Your task to perform on an android device: open app "LinkedIn" (install if not already installed) Image 0: 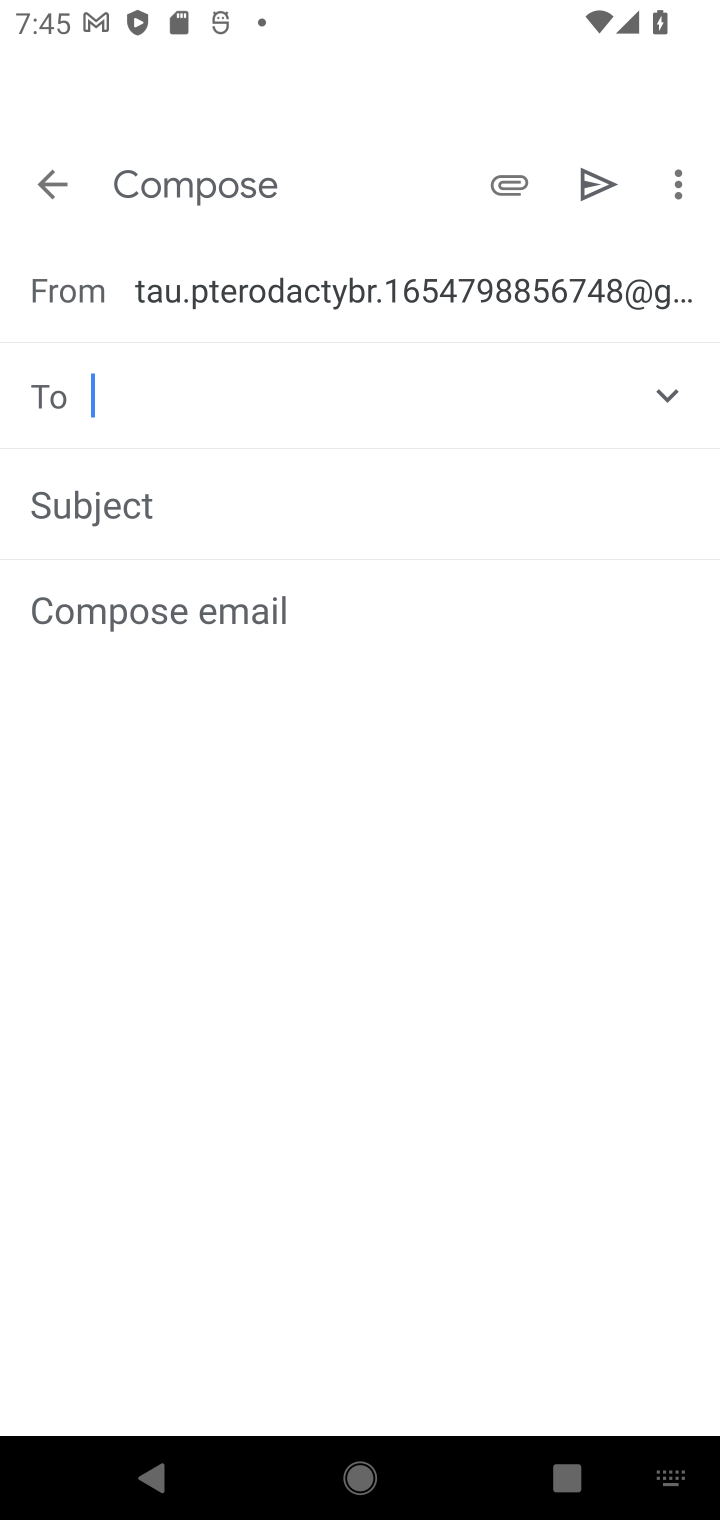
Step 0: press back button
Your task to perform on an android device: open app "LinkedIn" (install if not already installed) Image 1: 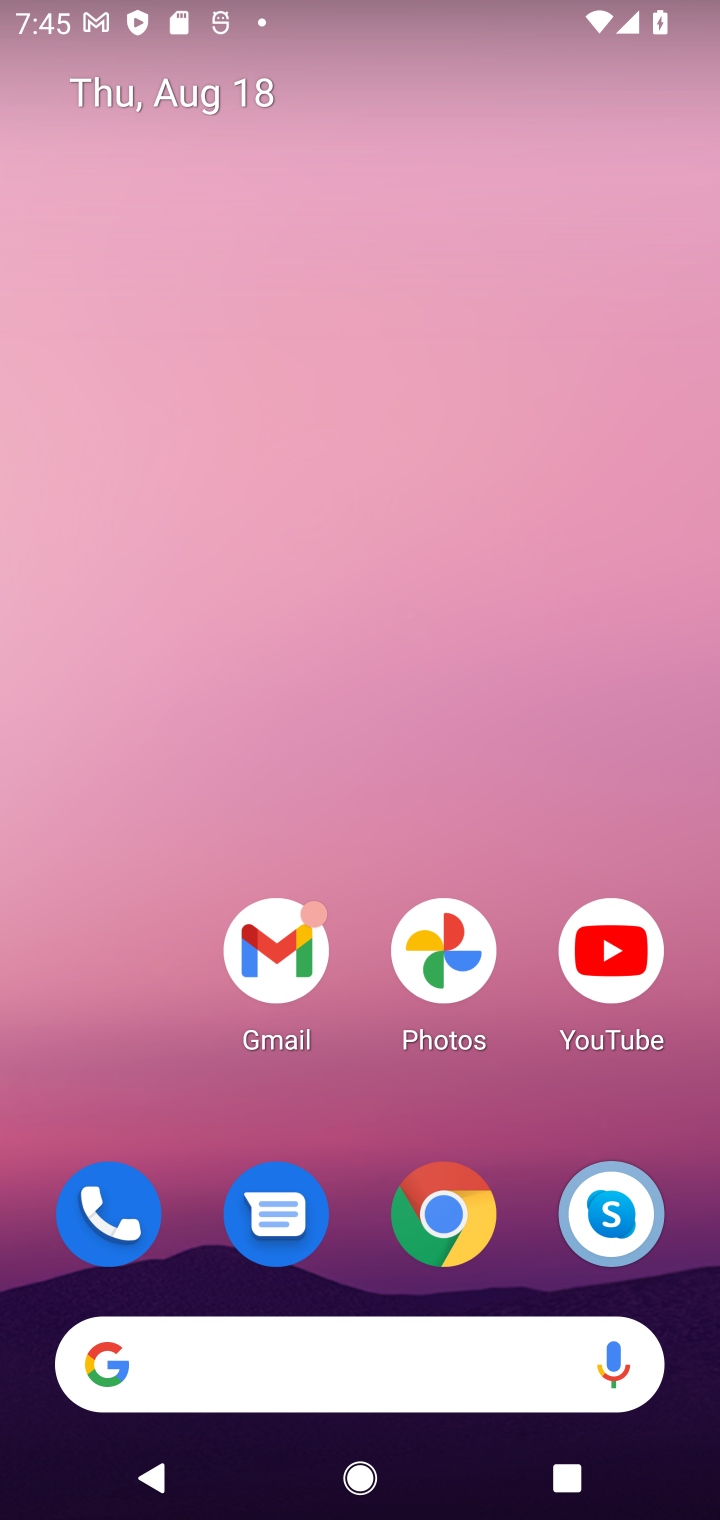
Step 1: drag from (137, 1066) to (244, 152)
Your task to perform on an android device: open app "LinkedIn" (install if not already installed) Image 2: 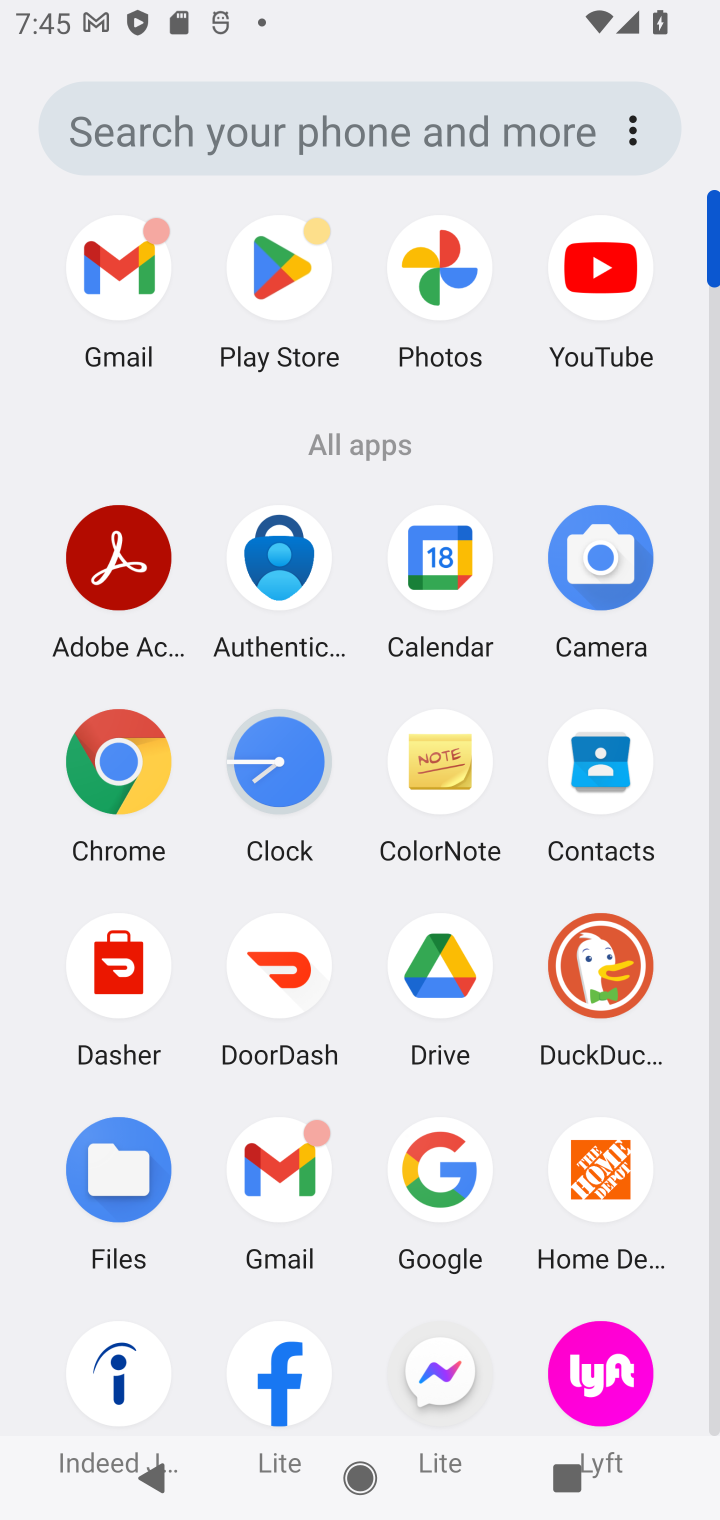
Step 2: click (290, 257)
Your task to perform on an android device: open app "LinkedIn" (install if not already installed) Image 3: 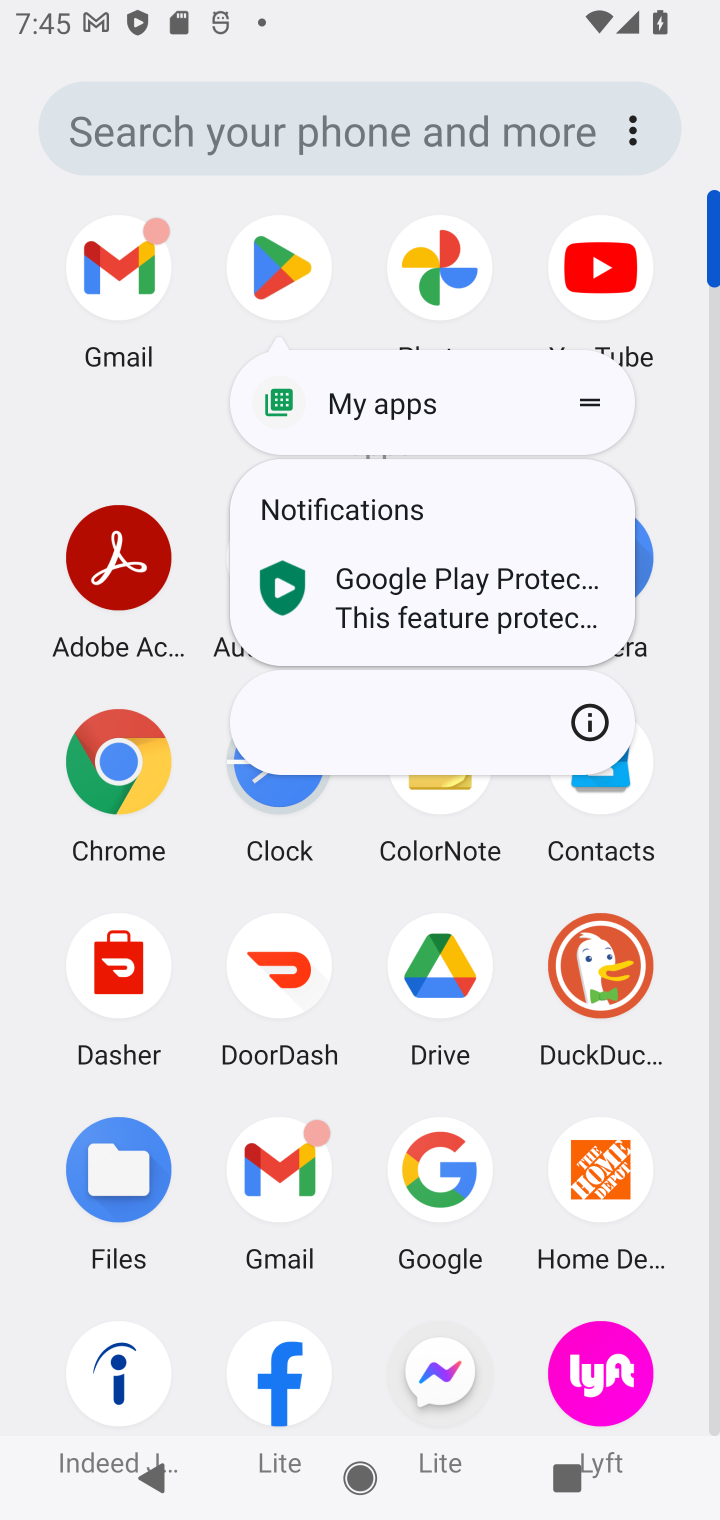
Step 3: click (277, 280)
Your task to perform on an android device: open app "LinkedIn" (install if not already installed) Image 4: 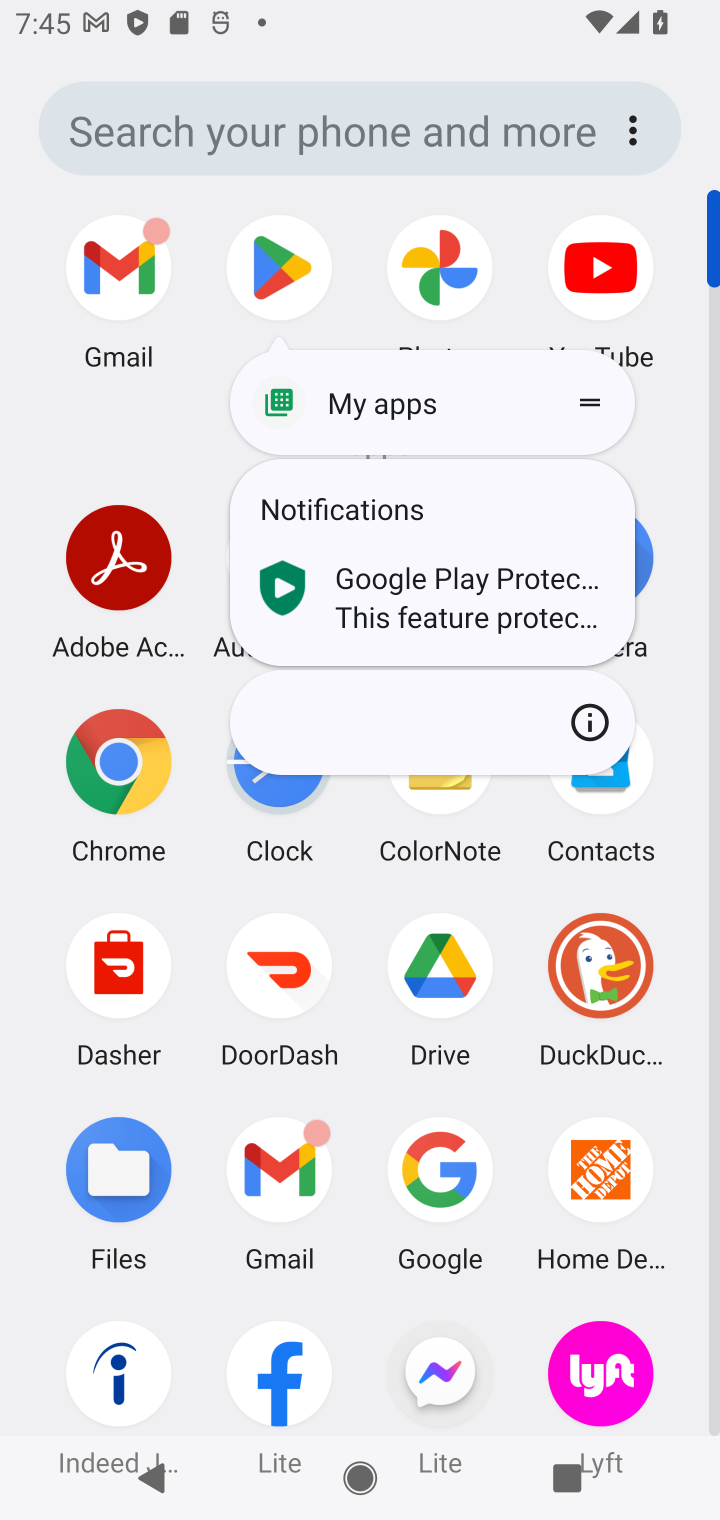
Step 4: click (270, 268)
Your task to perform on an android device: open app "LinkedIn" (install if not already installed) Image 5: 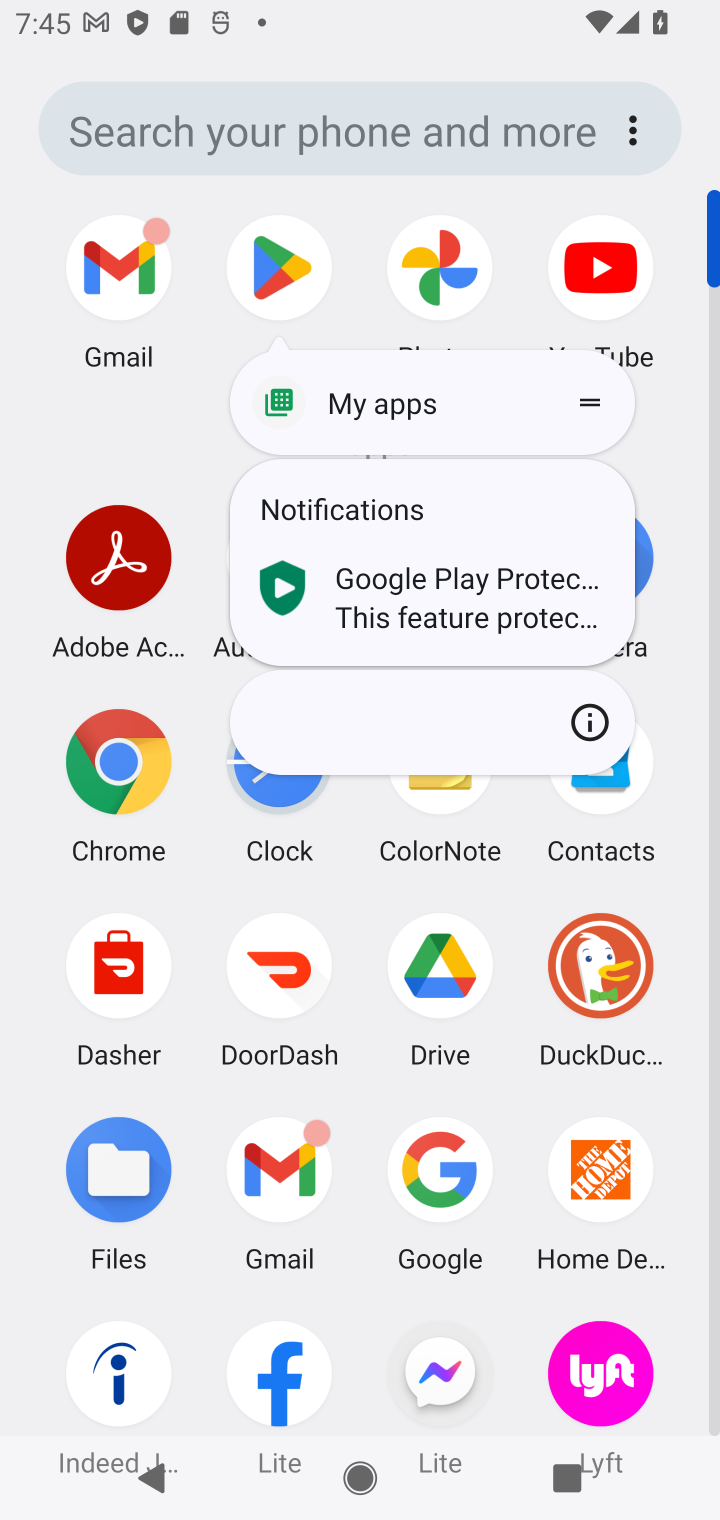
Step 5: click (273, 262)
Your task to perform on an android device: open app "LinkedIn" (install if not already installed) Image 6: 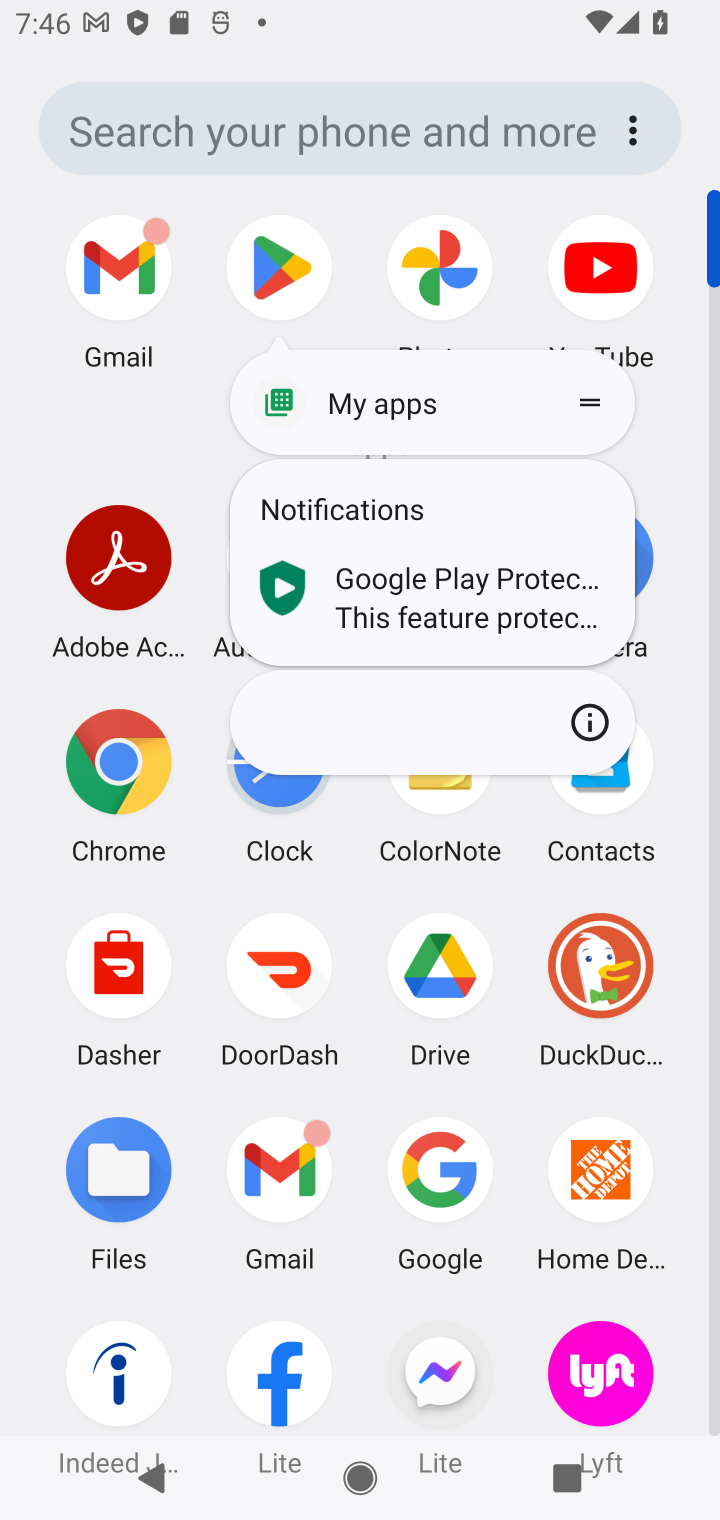
Step 6: click (281, 273)
Your task to perform on an android device: open app "LinkedIn" (install if not already installed) Image 7: 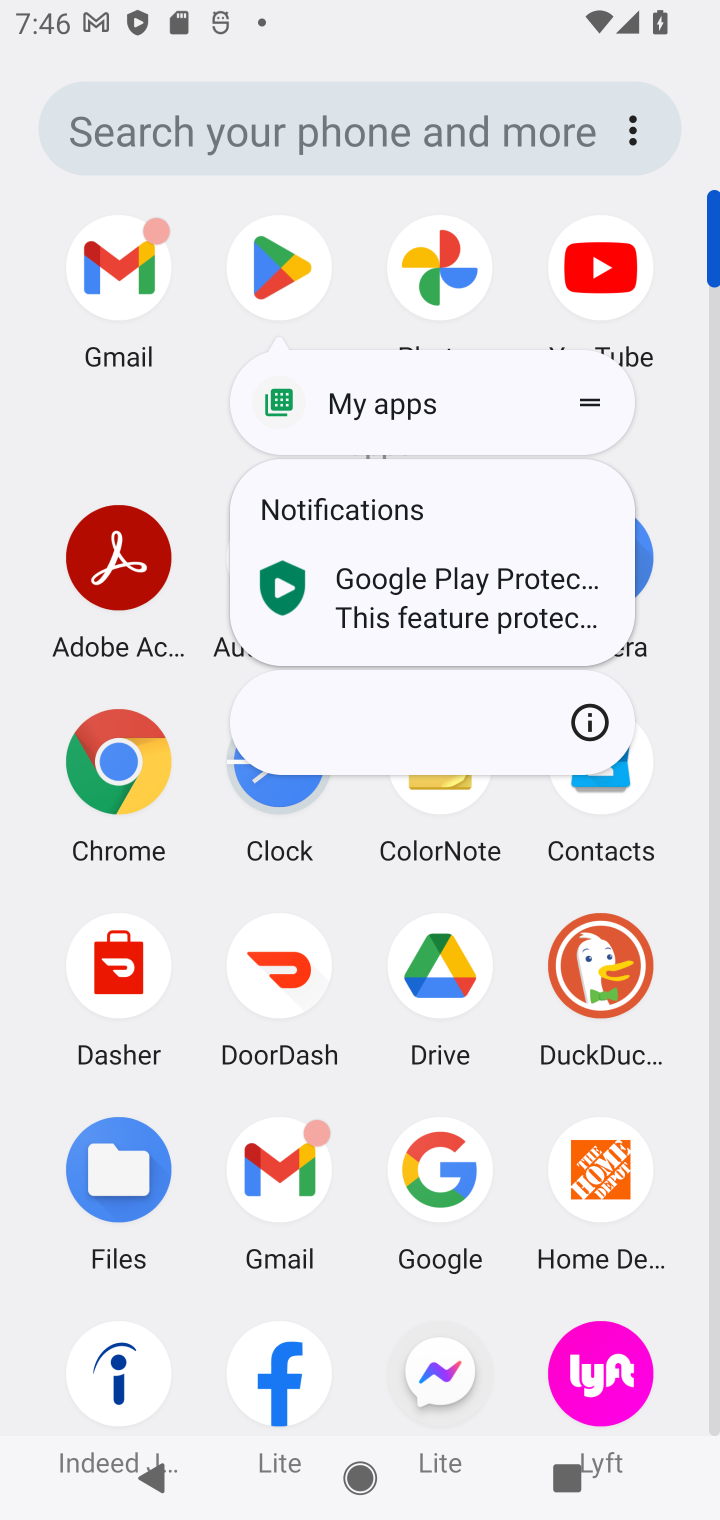
Step 7: click (281, 273)
Your task to perform on an android device: open app "LinkedIn" (install if not already installed) Image 8: 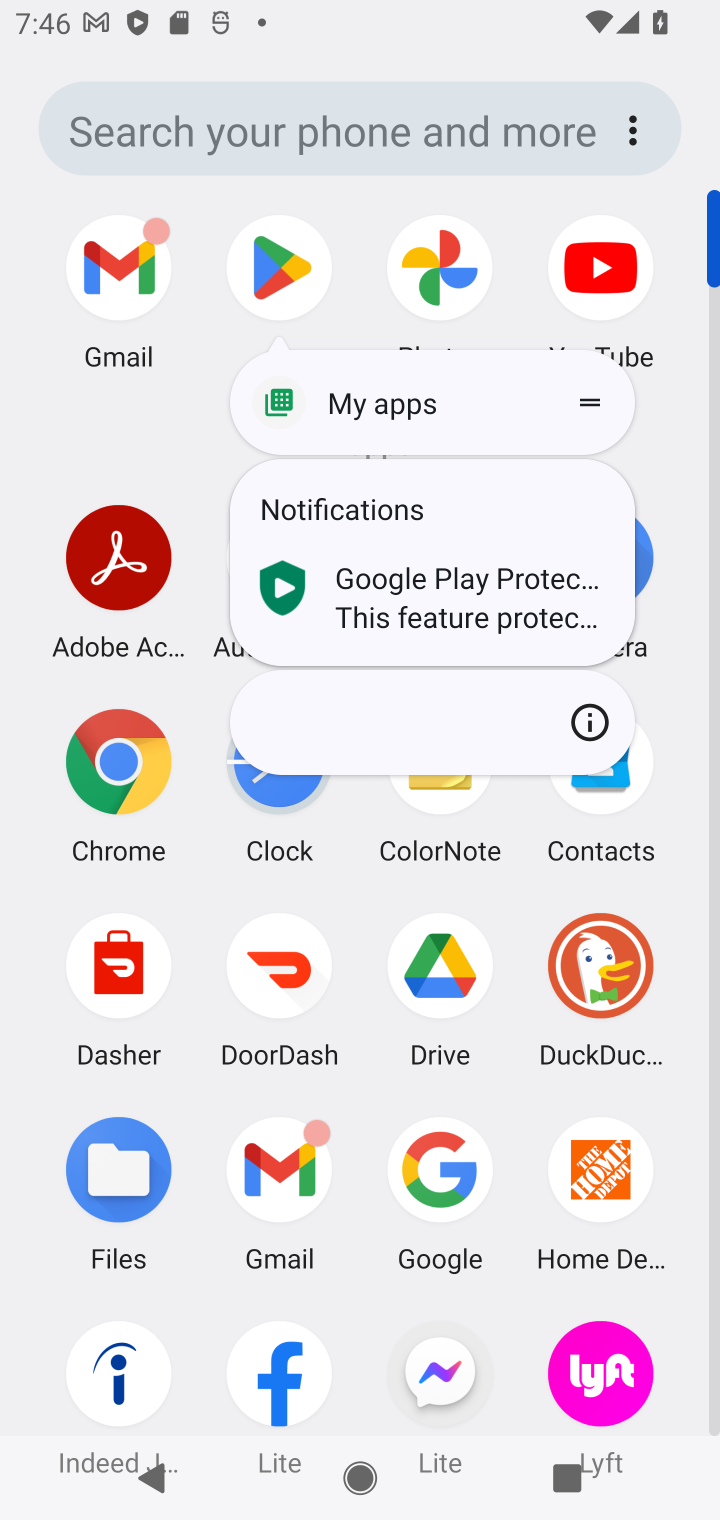
Step 8: click (285, 273)
Your task to perform on an android device: open app "LinkedIn" (install if not already installed) Image 9: 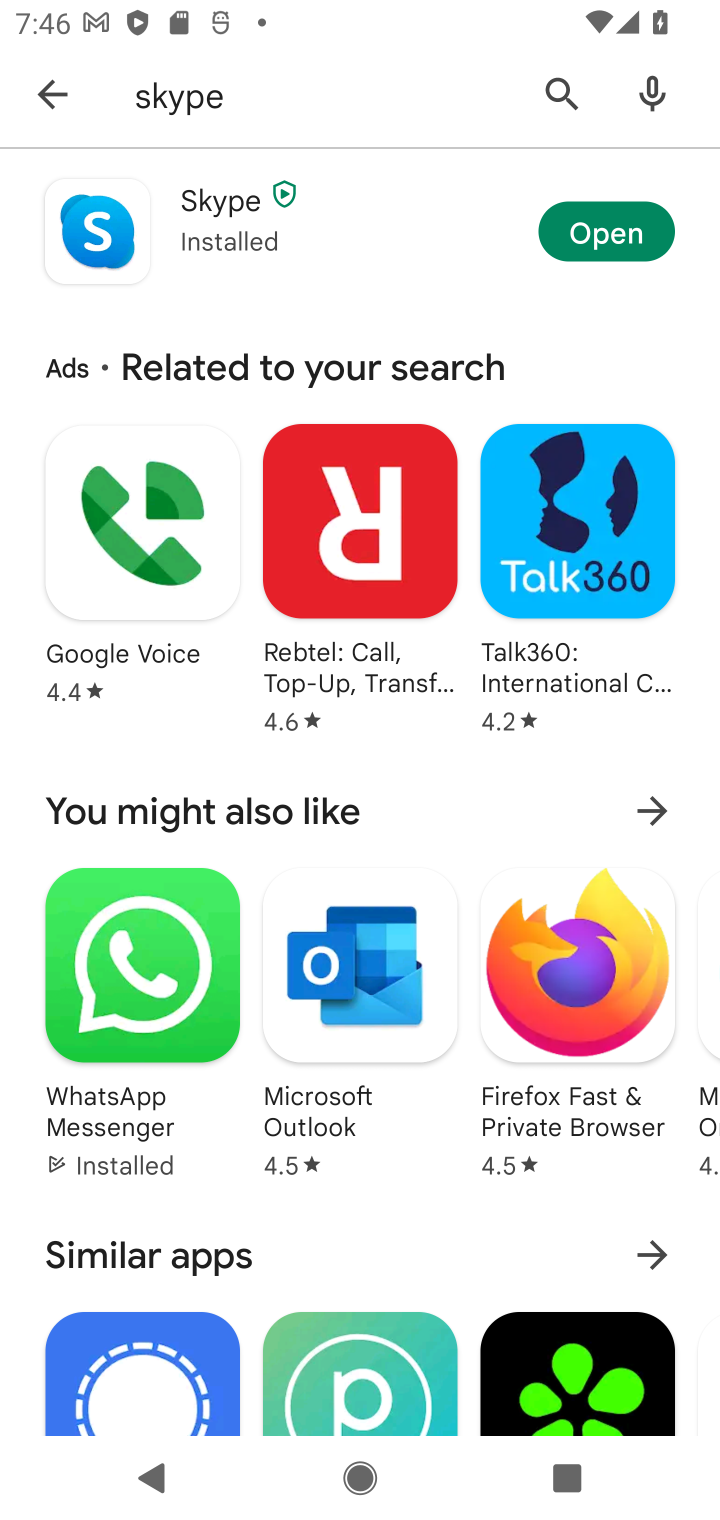
Step 9: click (545, 89)
Your task to perform on an android device: open app "LinkedIn" (install if not already installed) Image 10: 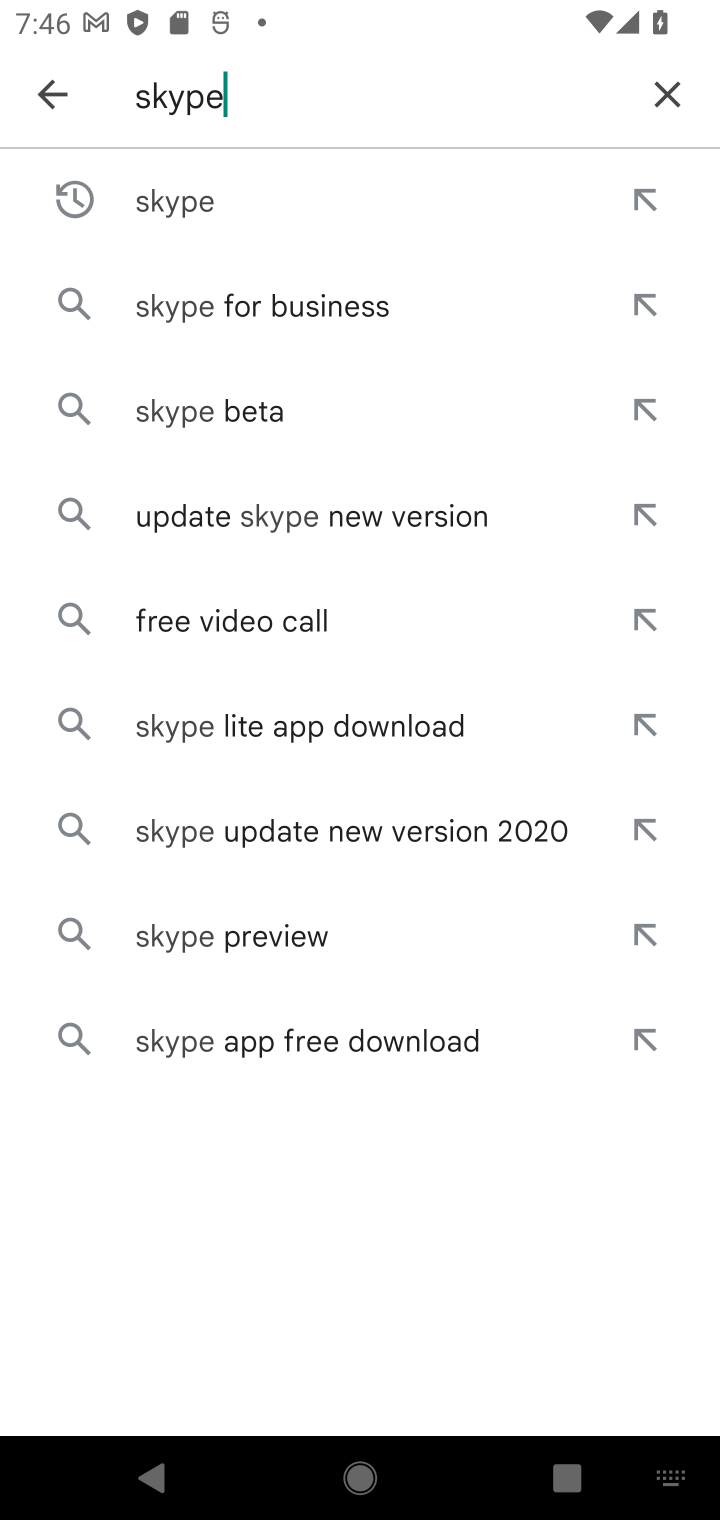
Step 10: click (665, 79)
Your task to perform on an android device: open app "LinkedIn" (install if not already installed) Image 11: 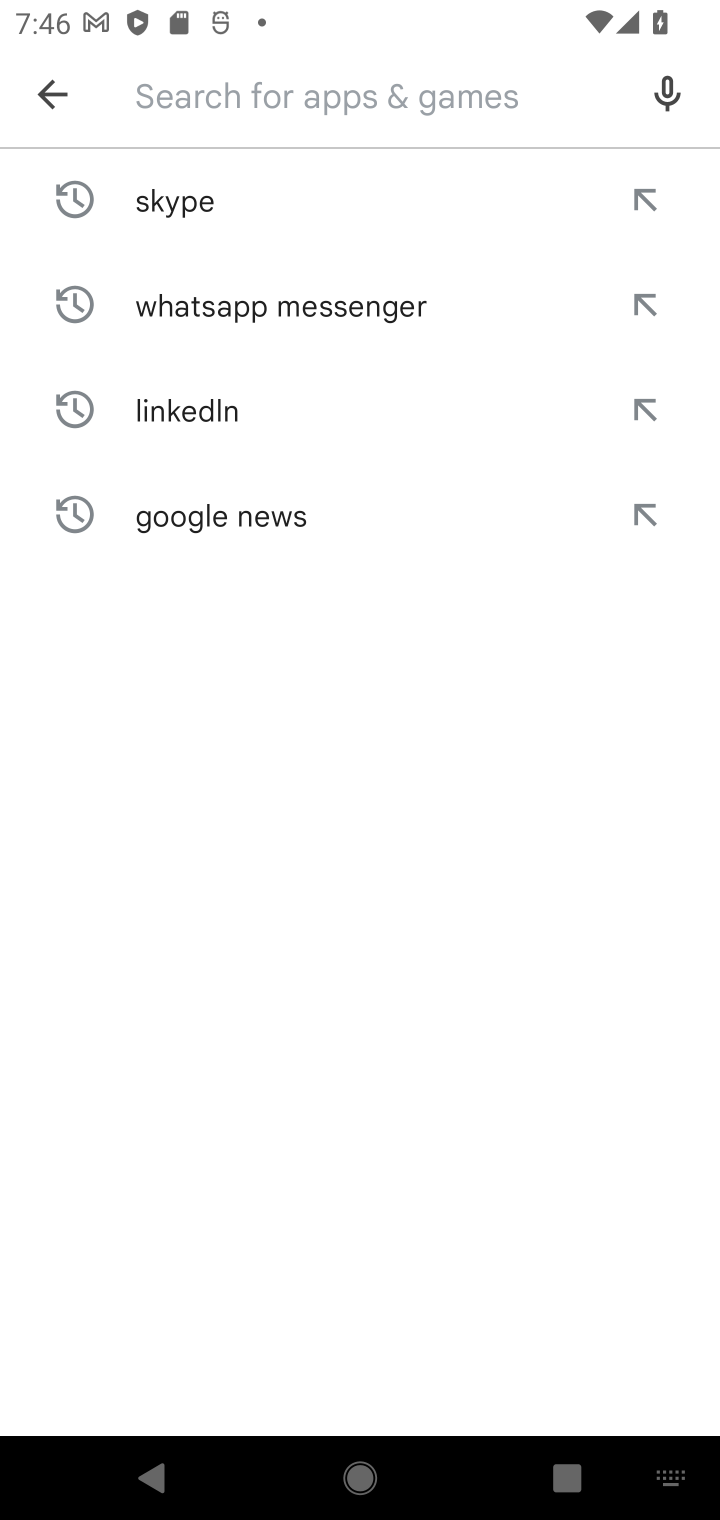
Step 11: click (212, 394)
Your task to perform on an android device: open app "LinkedIn" (install if not already installed) Image 12: 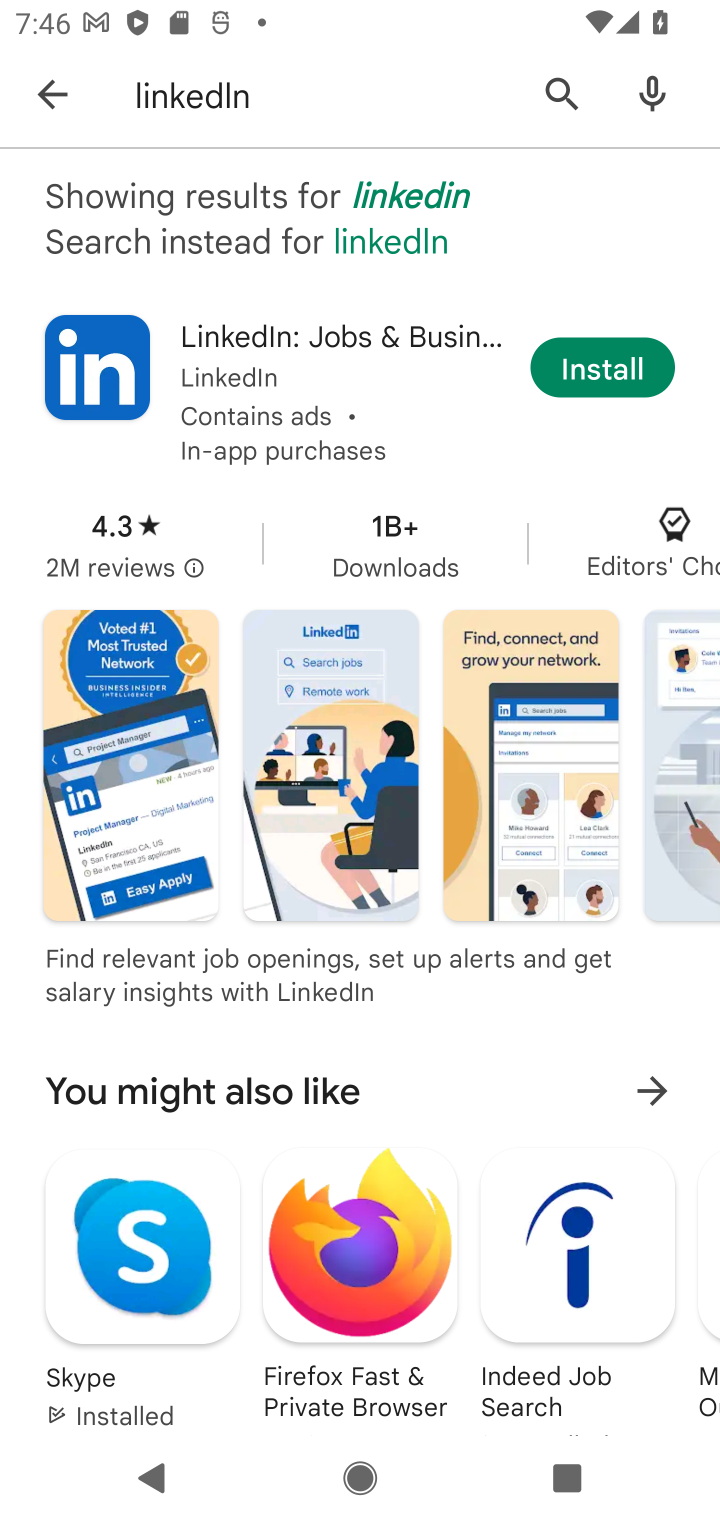
Step 12: click (565, 367)
Your task to perform on an android device: open app "LinkedIn" (install if not already installed) Image 13: 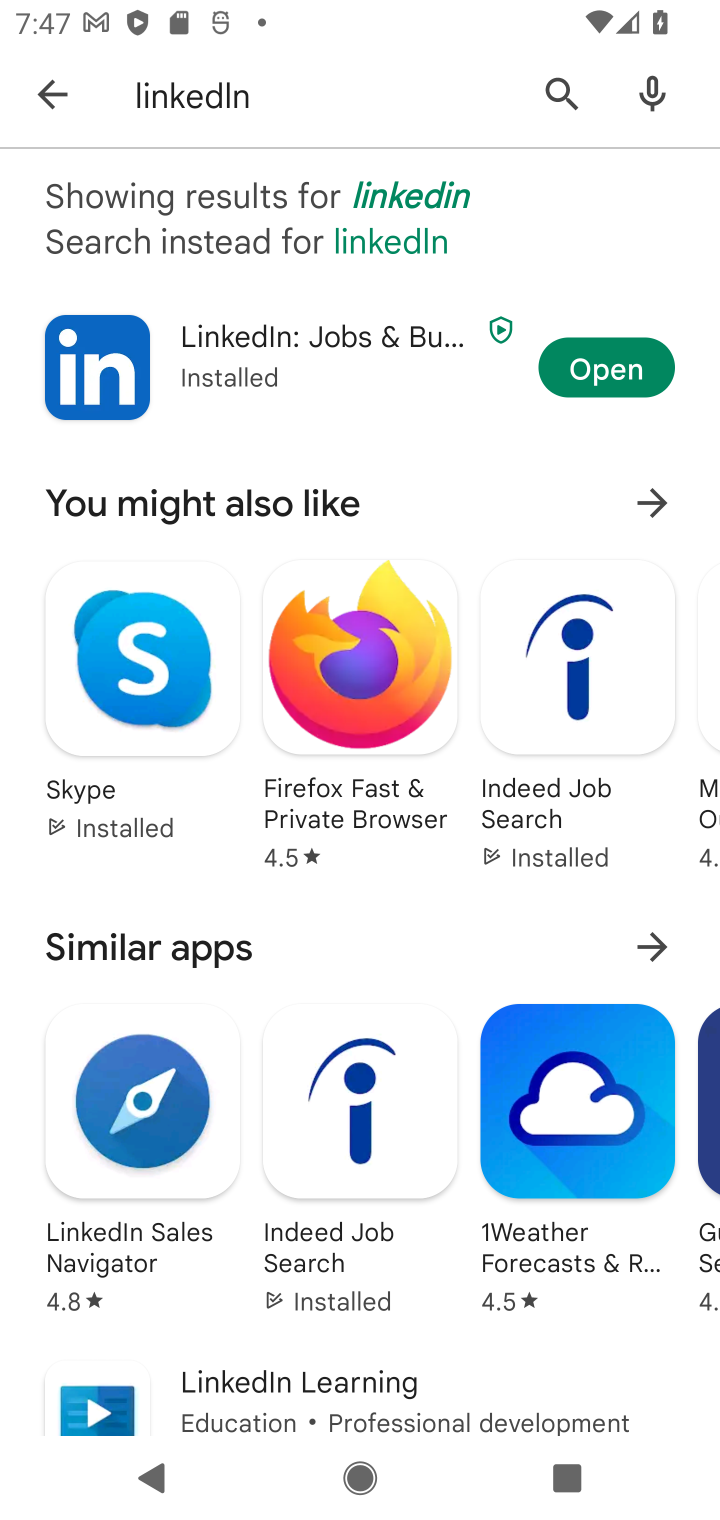
Step 13: click (603, 378)
Your task to perform on an android device: open app "LinkedIn" (install if not already installed) Image 14: 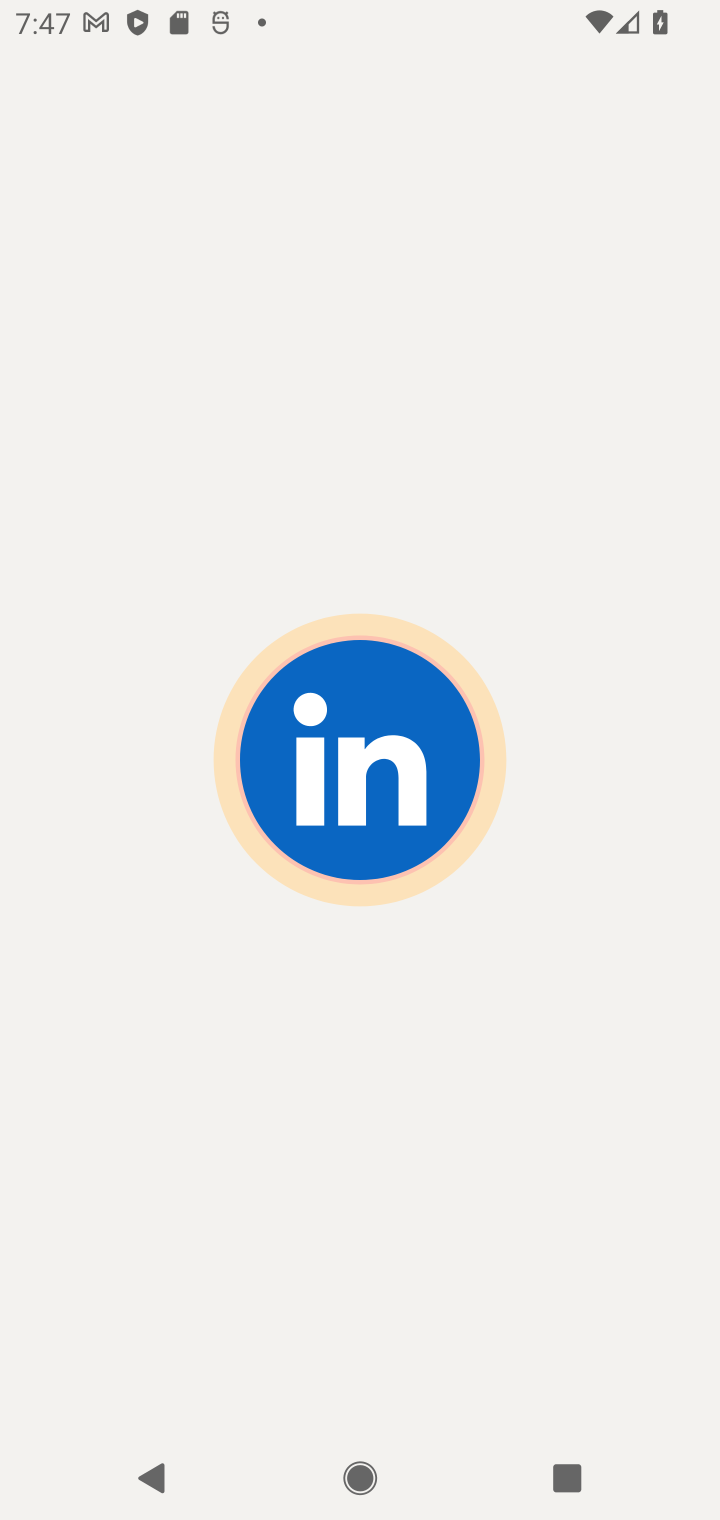
Step 14: task complete